Your task to perform on an android device: Open the stopwatch Image 0: 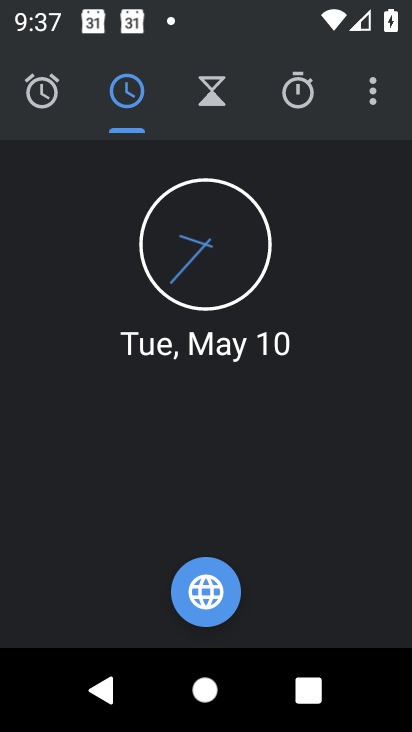
Step 0: click (389, 242)
Your task to perform on an android device: Open the stopwatch Image 1: 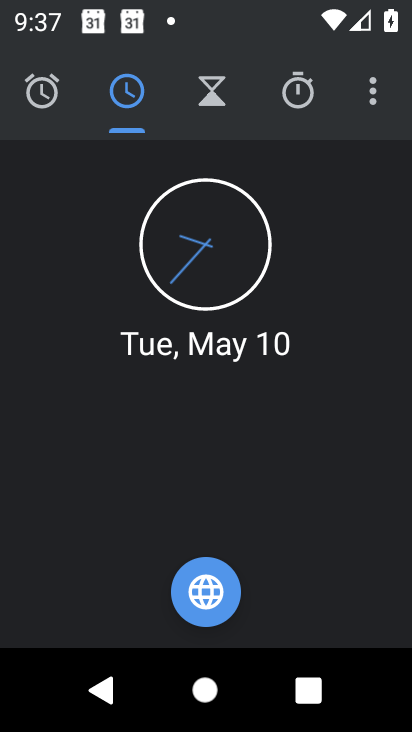
Step 1: click (279, 106)
Your task to perform on an android device: Open the stopwatch Image 2: 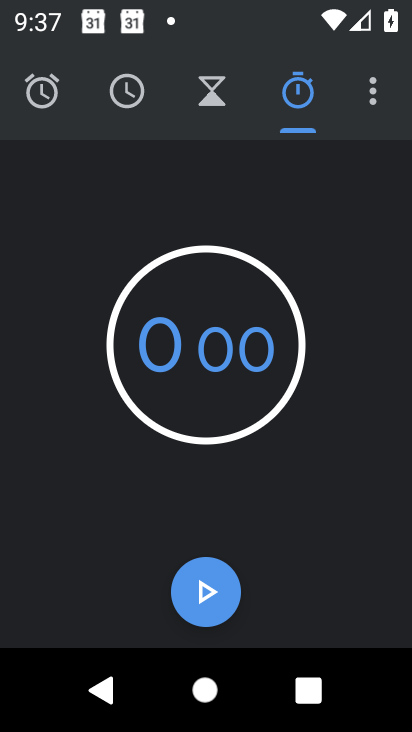
Step 2: task complete